Your task to perform on an android device: Open the calendar app, open the side menu, and click the "Day" option Image 0: 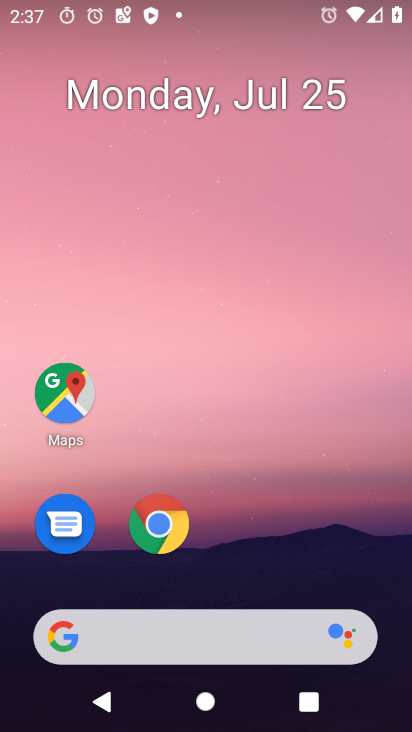
Step 0: press home button
Your task to perform on an android device: Open the calendar app, open the side menu, and click the "Day" option Image 1: 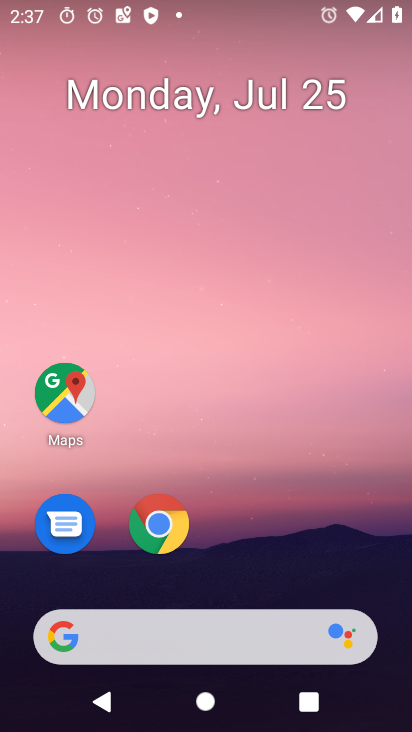
Step 1: drag from (251, 582) to (237, 82)
Your task to perform on an android device: Open the calendar app, open the side menu, and click the "Day" option Image 2: 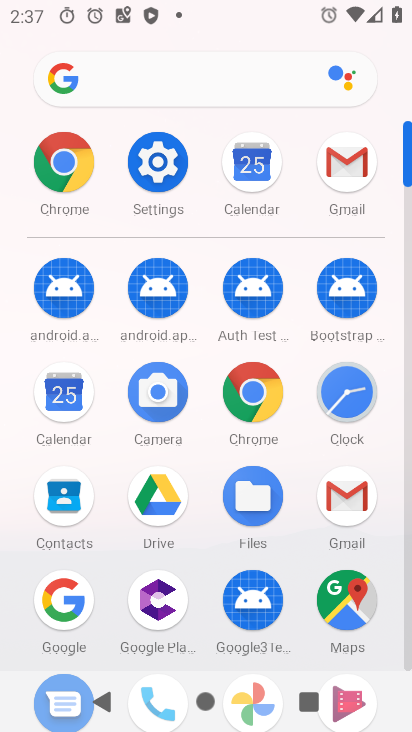
Step 2: click (256, 169)
Your task to perform on an android device: Open the calendar app, open the side menu, and click the "Day" option Image 3: 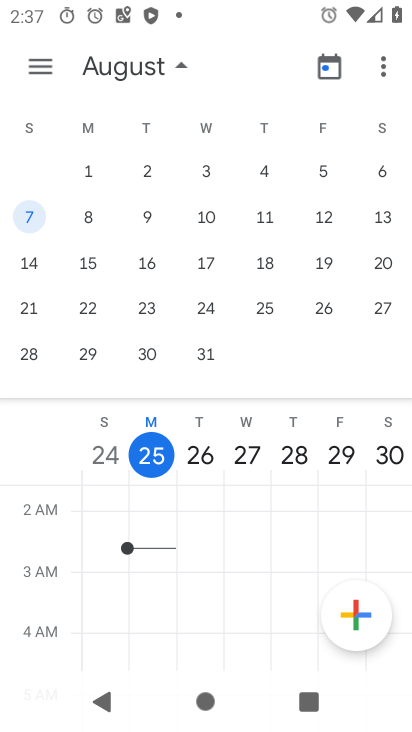
Step 3: click (50, 67)
Your task to perform on an android device: Open the calendar app, open the side menu, and click the "Day" option Image 4: 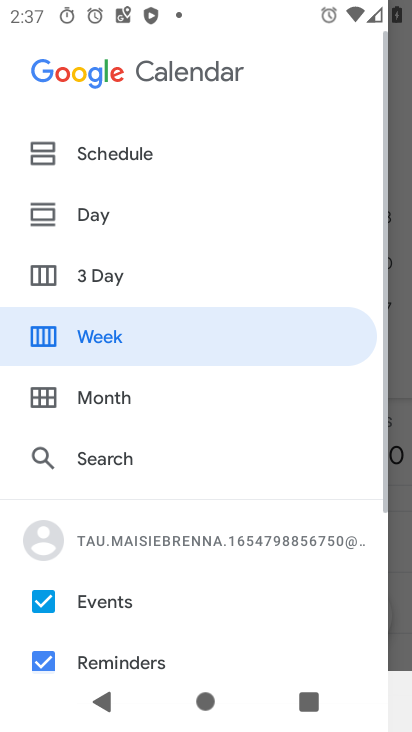
Step 4: click (98, 217)
Your task to perform on an android device: Open the calendar app, open the side menu, and click the "Day" option Image 5: 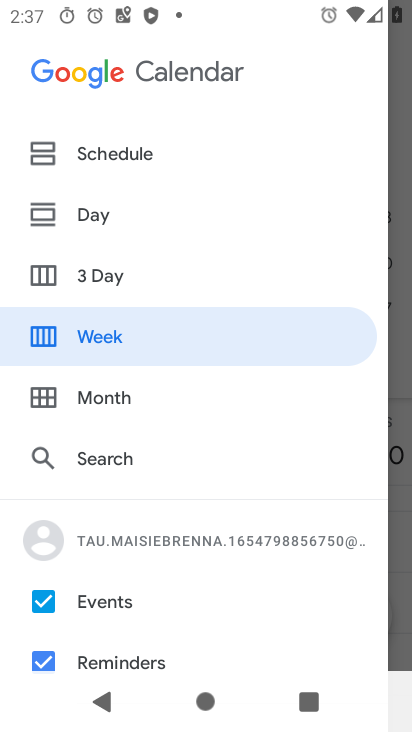
Step 5: click (98, 222)
Your task to perform on an android device: Open the calendar app, open the side menu, and click the "Day" option Image 6: 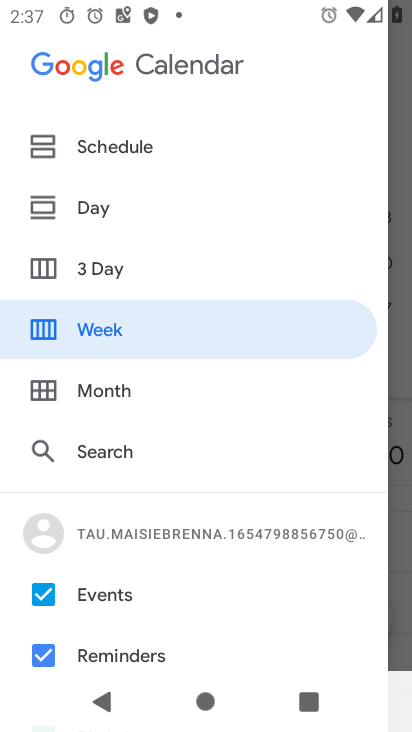
Step 6: click (86, 216)
Your task to perform on an android device: Open the calendar app, open the side menu, and click the "Day" option Image 7: 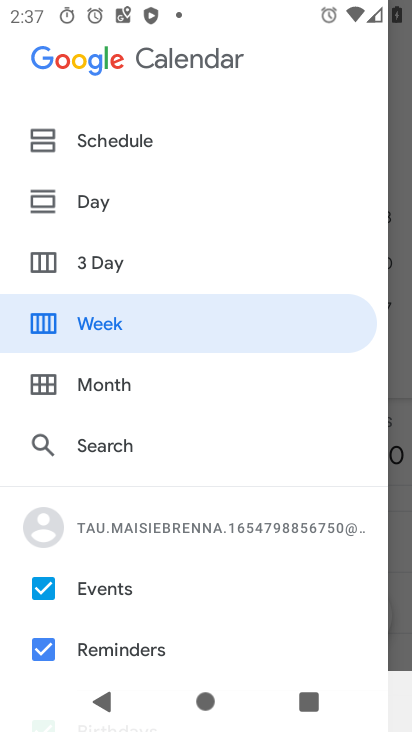
Step 7: click (43, 212)
Your task to perform on an android device: Open the calendar app, open the side menu, and click the "Day" option Image 8: 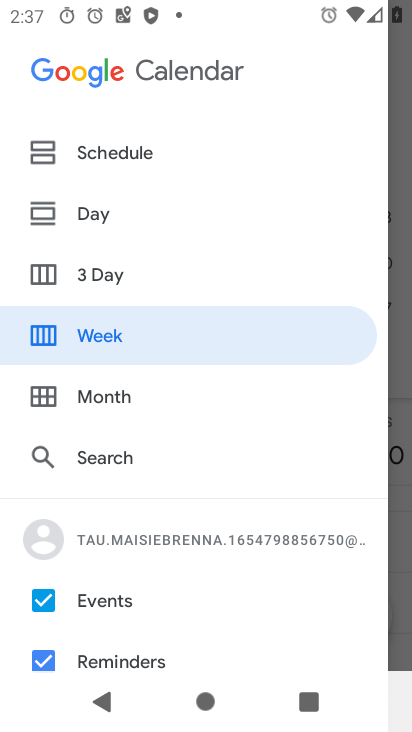
Step 8: task complete